Your task to perform on an android device: turn on translation in the chrome app Image 0: 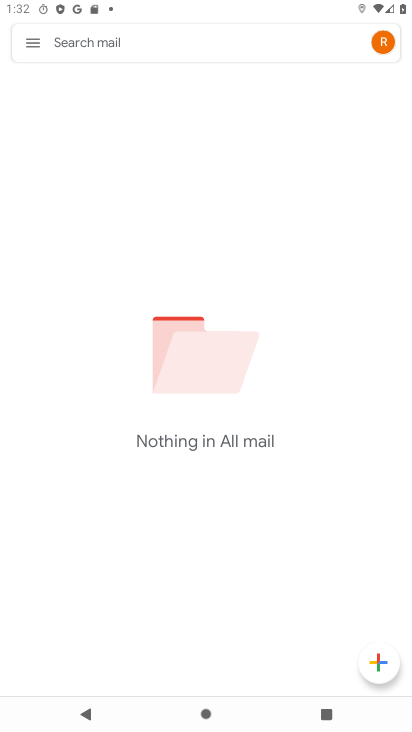
Step 0: press home button
Your task to perform on an android device: turn on translation in the chrome app Image 1: 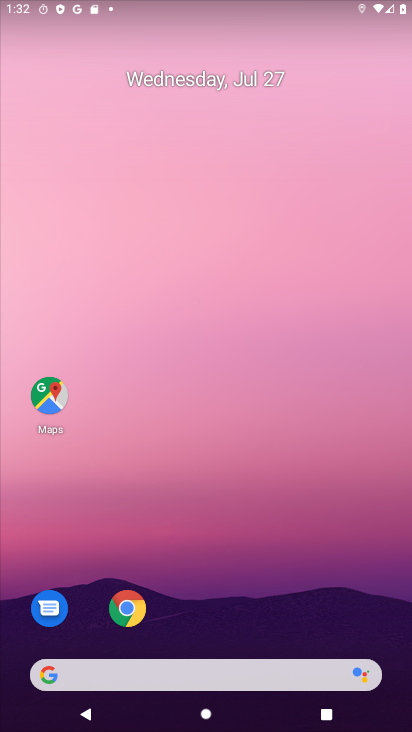
Step 1: click (139, 625)
Your task to perform on an android device: turn on translation in the chrome app Image 2: 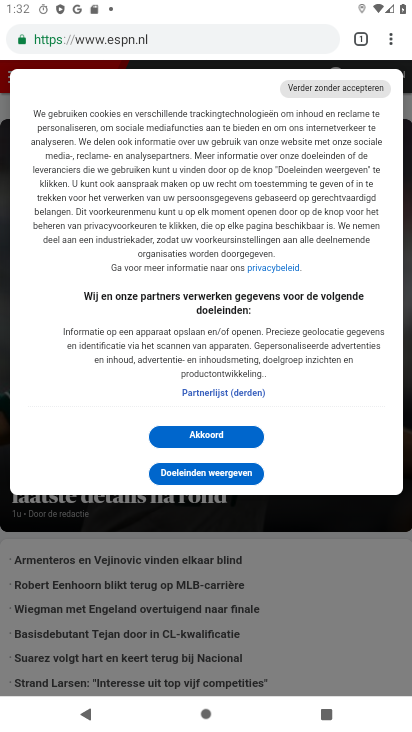
Step 2: click (390, 44)
Your task to perform on an android device: turn on translation in the chrome app Image 3: 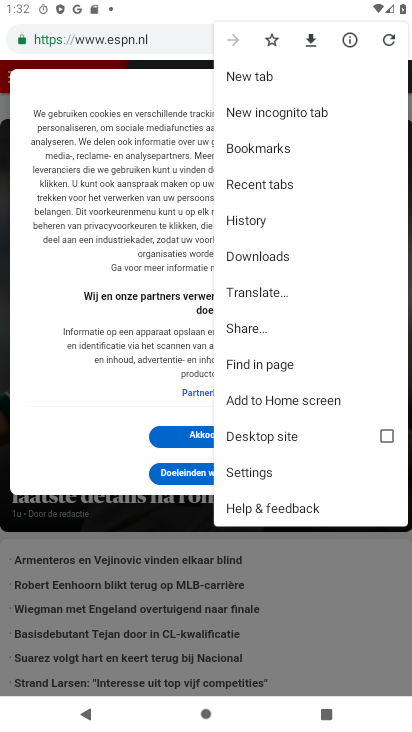
Step 3: click (256, 476)
Your task to perform on an android device: turn on translation in the chrome app Image 4: 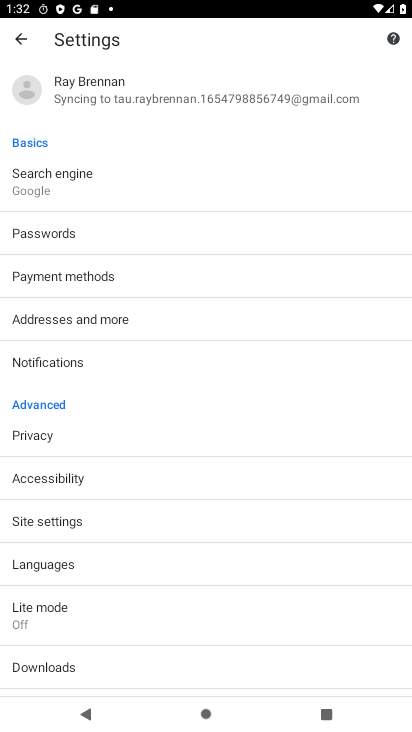
Step 4: click (66, 568)
Your task to perform on an android device: turn on translation in the chrome app Image 5: 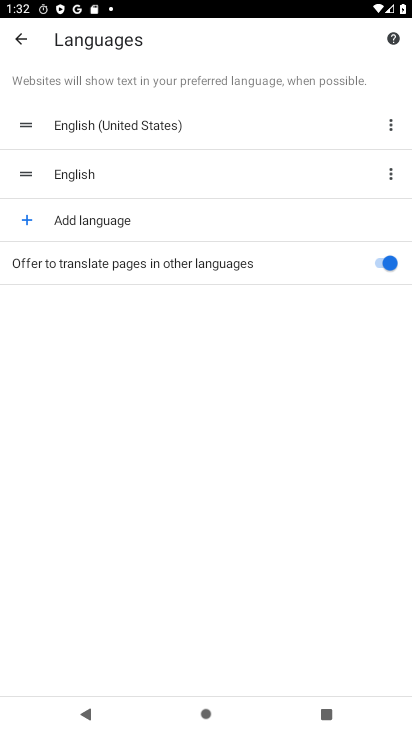
Step 5: task complete